Your task to perform on an android device: Open maps Image 0: 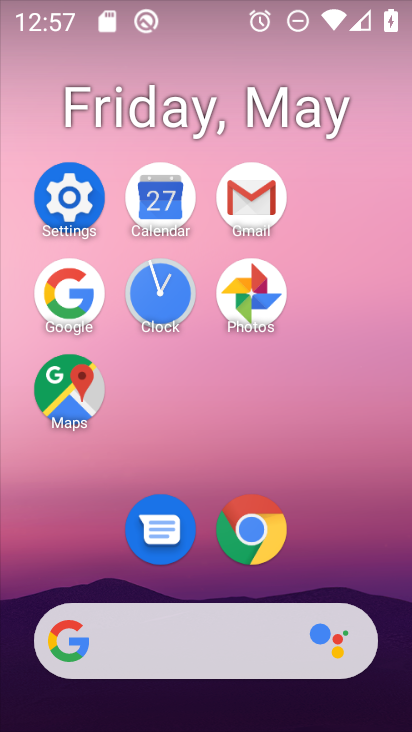
Step 0: click (91, 407)
Your task to perform on an android device: Open maps Image 1: 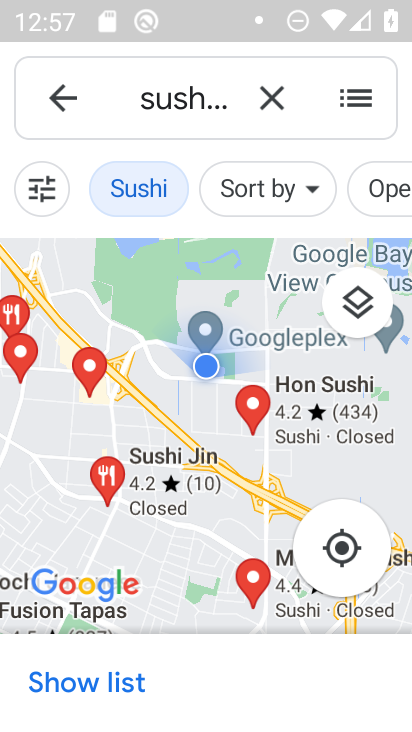
Step 1: task complete